Your task to perform on an android device: set default search engine in the chrome app Image 0: 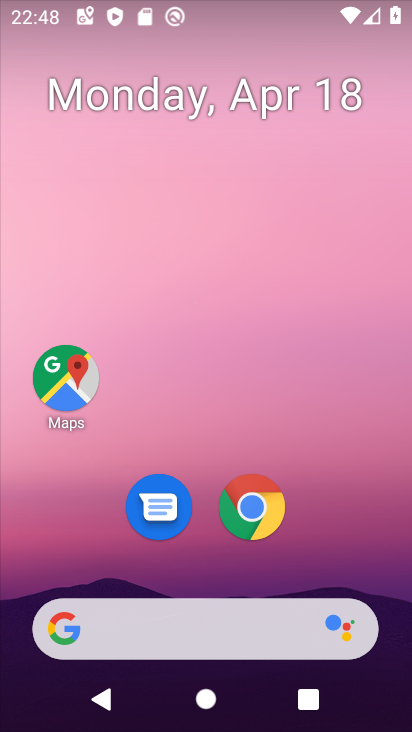
Step 0: click (263, 510)
Your task to perform on an android device: set default search engine in the chrome app Image 1: 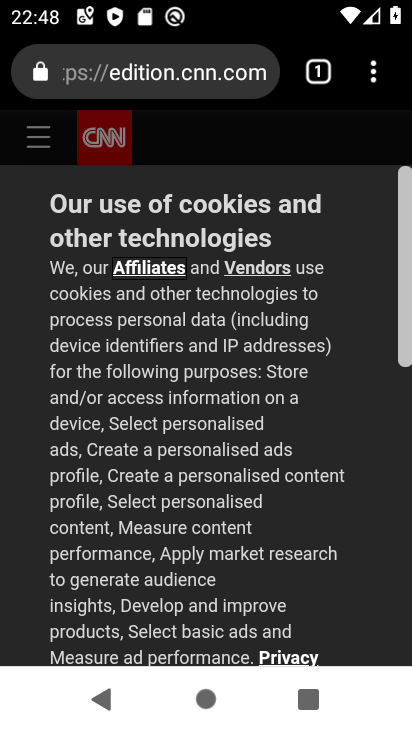
Step 1: click (376, 73)
Your task to perform on an android device: set default search engine in the chrome app Image 2: 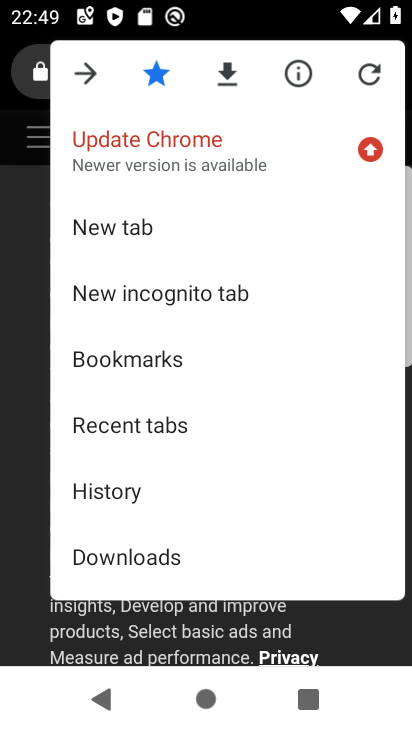
Step 2: drag from (226, 460) to (256, 236)
Your task to perform on an android device: set default search engine in the chrome app Image 3: 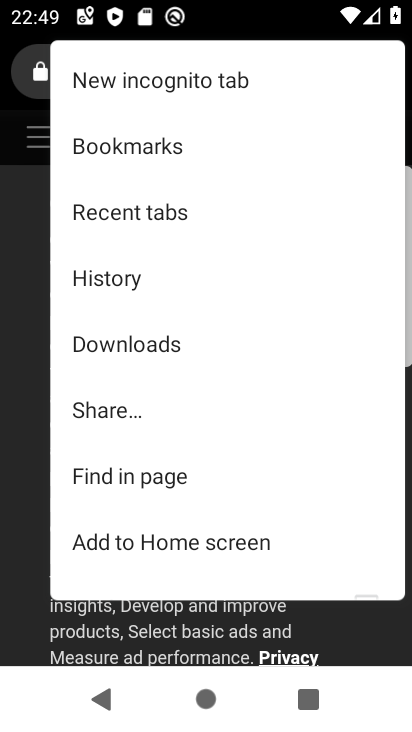
Step 3: drag from (208, 486) to (254, 136)
Your task to perform on an android device: set default search engine in the chrome app Image 4: 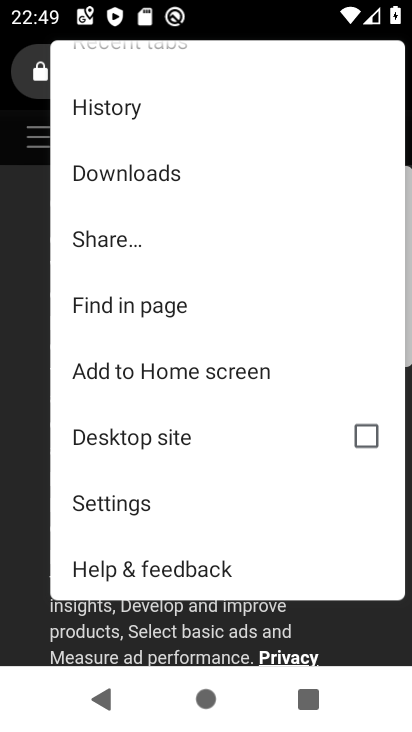
Step 4: click (166, 498)
Your task to perform on an android device: set default search engine in the chrome app Image 5: 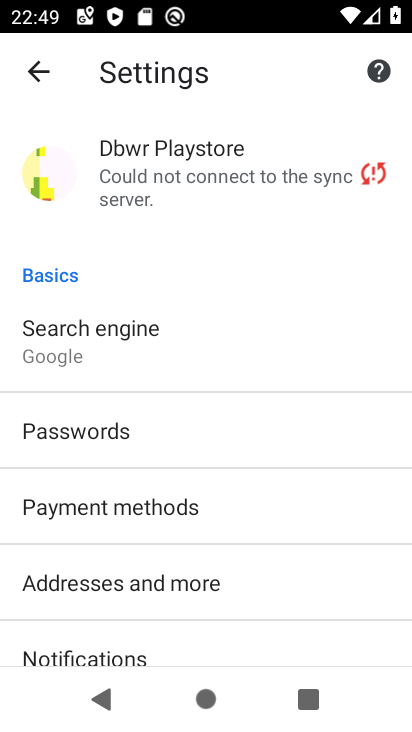
Step 5: click (180, 350)
Your task to perform on an android device: set default search engine in the chrome app Image 6: 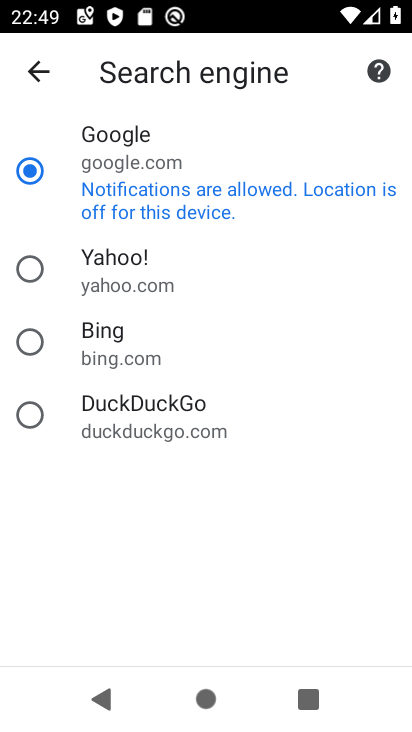
Step 6: task complete